Your task to perform on an android device: turn off picture-in-picture Image 0: 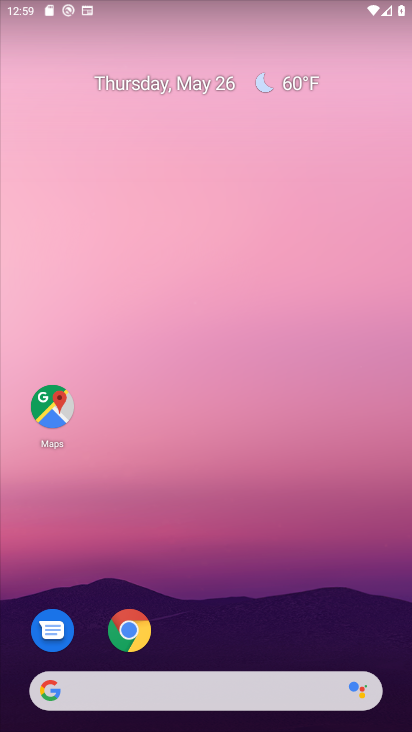
Step 0: drag from (292, 546) to (245, 62)
Your task to perform on an android device: turn off picture-in-picture Image 1: 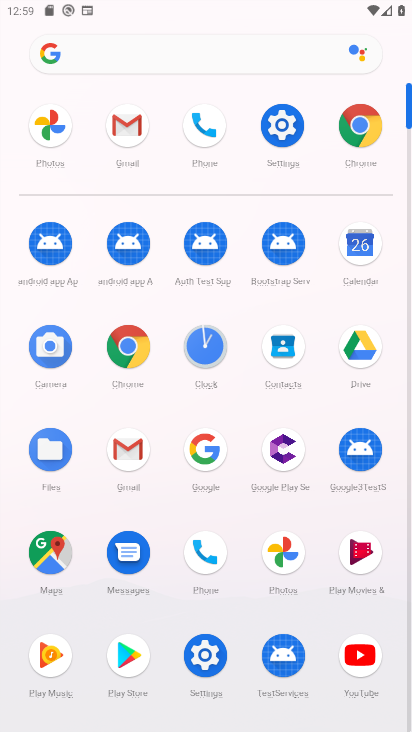
Step 1: click (357, 120)
Your task to perform on an android device: turn off picture-in-picture Image 2: 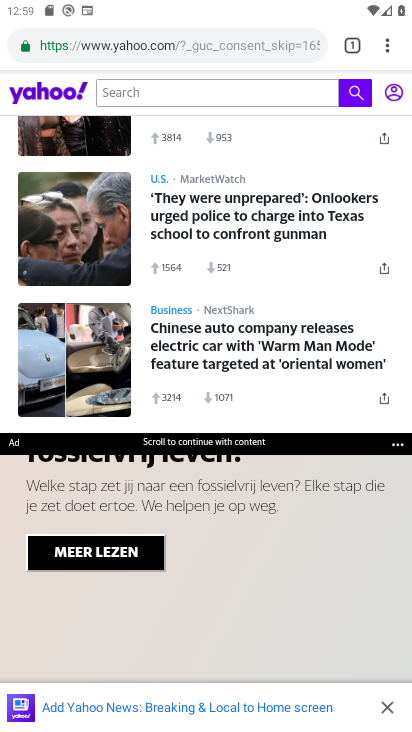
Step 2: drag from (370, 146) to (351, 602)
Your task to perform on an android device: turn off picture-in-picture Image 3: 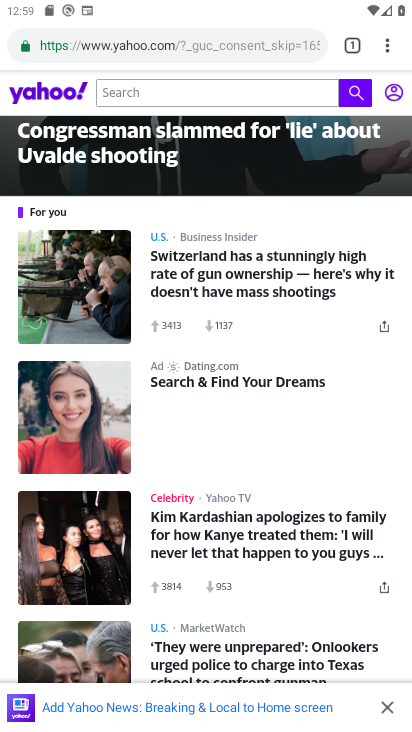
Step 3: drag from (330, 240) to (364, 556)
Your task to perform on an android device: turn off picture-in-picture Image 4: 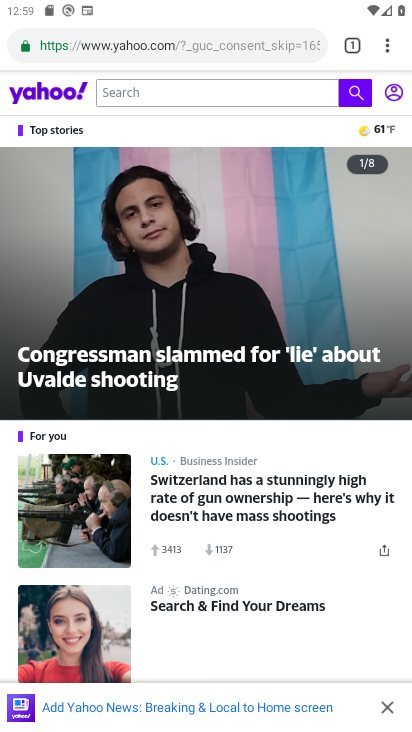
Step 4: click (380, 43)
Your task to perform on an android device: turn off picture-in-picture Image 5: 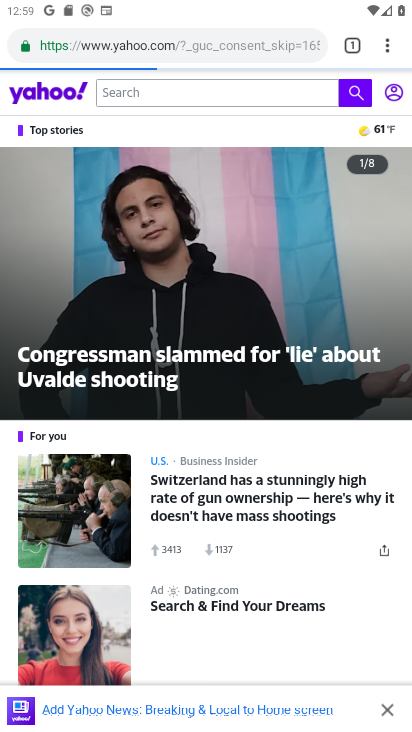
Step 5: press home button
Your task to perform on an android device: turn off picture-in-picture Image 6: 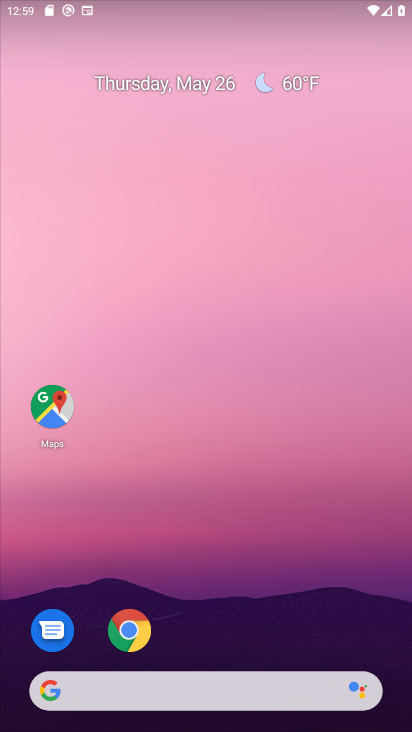
Step 6: drag from (255, 589) to (233, 195)
Your task to perform on an android device: turn off picture-in-picture Image 7: 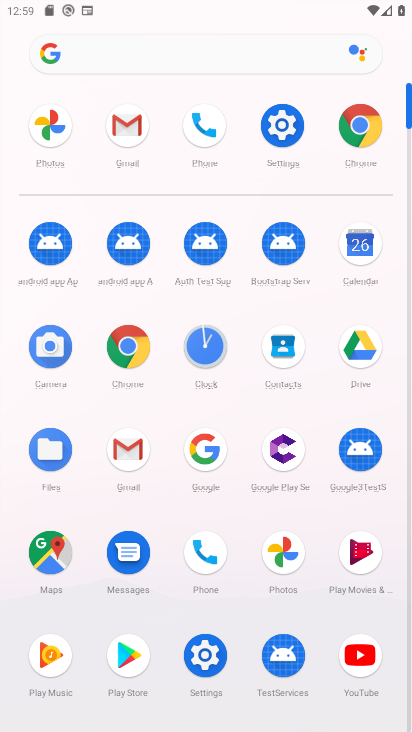
Step 7: click (372, 132)
Your task to perform on an android device: turn off picture-in-picture Image 8: 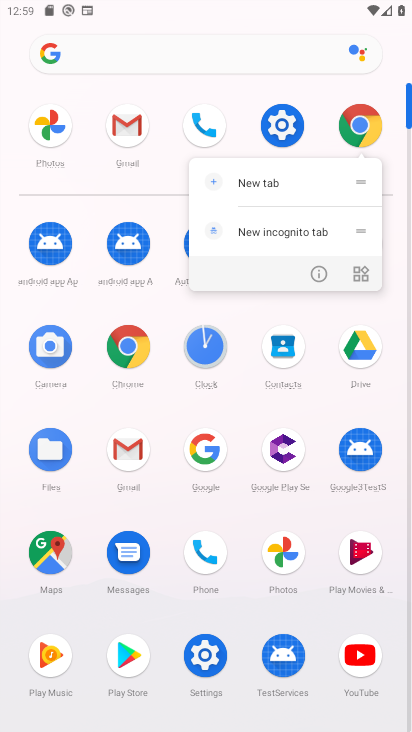
Step 8: click (316, 270)
Your task to perform on an android device: turn off picture-in-picture Image 9: 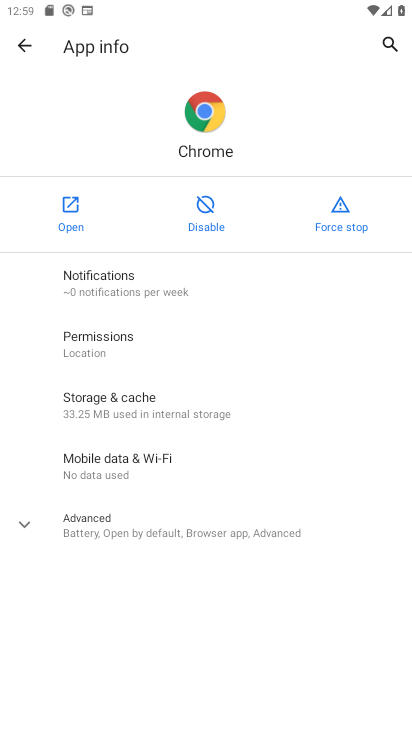
Step 9: click (134, 541)
Your task to perform on an android device: turn off picture-in-picture Image 10: 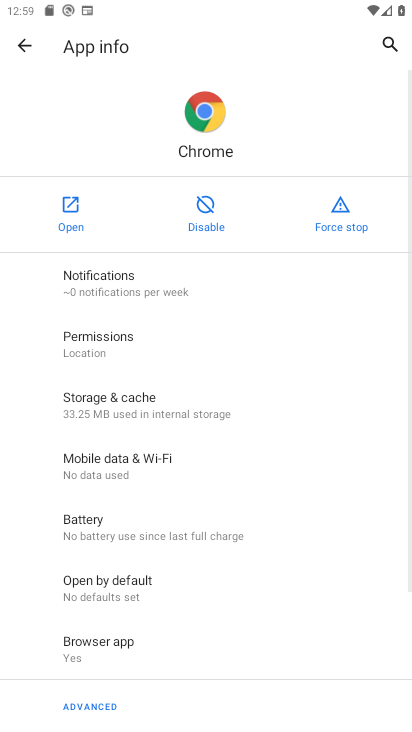
Step 10: drag from (215, 671) to (267, 268)
Your task to perform on an android device: turn off picture-in-picture Image 11: 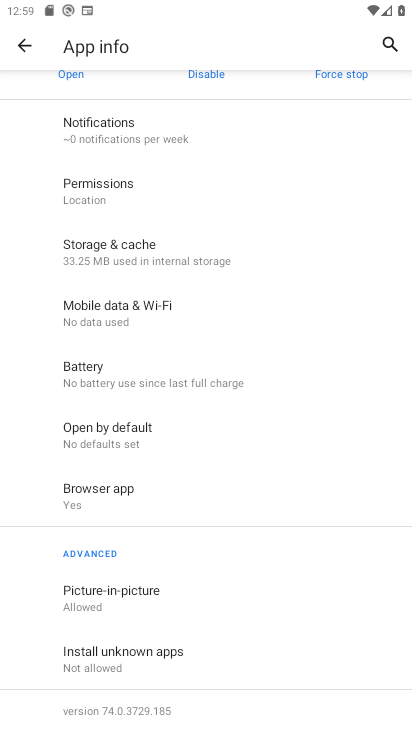
Step 11: click (96, 616)
Your task to perform on an android device: turn off picture-in-picture Image 12: 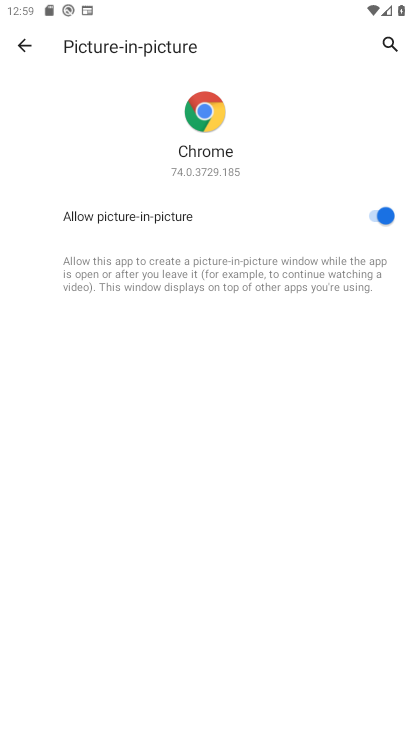
Step 12: click (377, 209)
Your task to perform on an android device: turn off picture-in-picture Image 13: 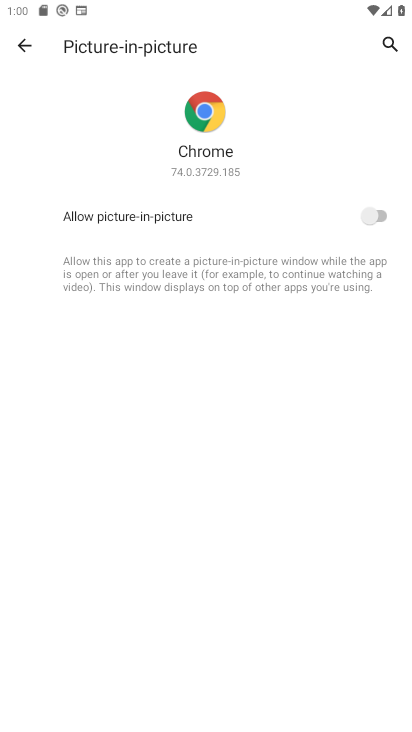
Step 13: task complete